Your task to perform on an android device: change keyboard looks Image 0: 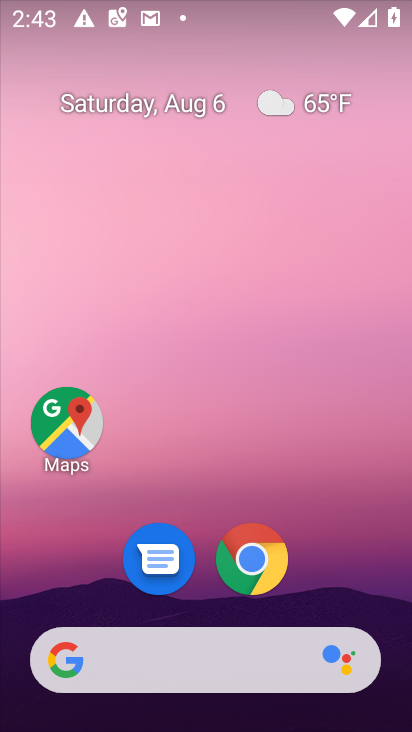
Step 0: drag from (208, 506) to (257, 138)
Your task to perform on an android device: change keyboard looks Image 1: 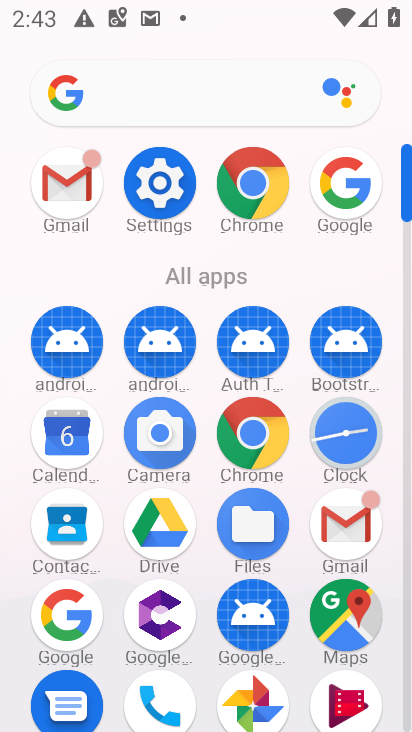
Step 1: click (156, 195)
Your task to perform on an android device: change keyboard looks Image 2: 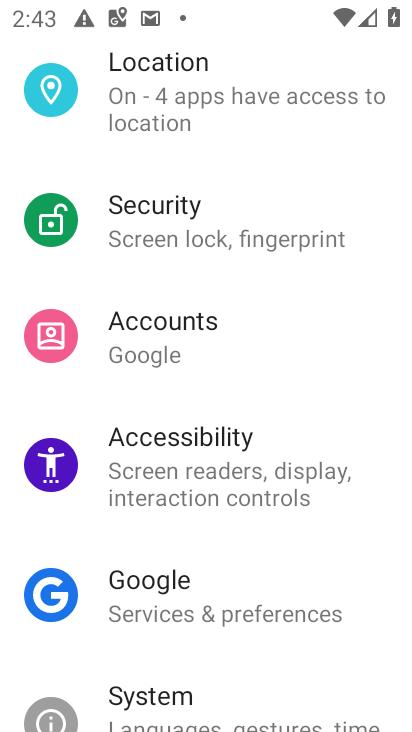
Step 2: drag from (242, 646) to (251, 242)
Your task to perform on an android device: change keyboard looks Image 3: 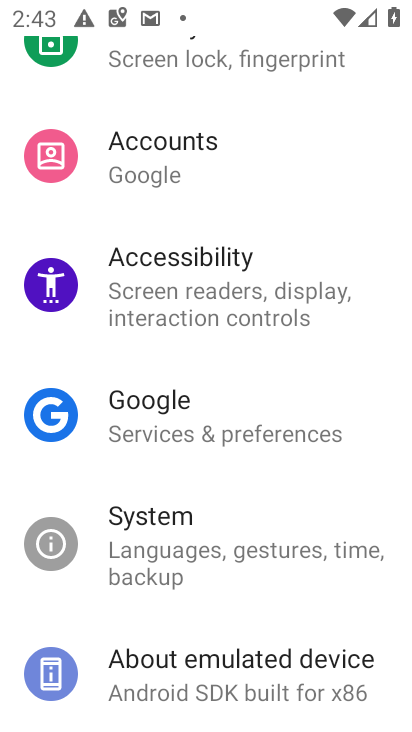
Step 3: click (187, 536)
Your task to perform on an android device: change keyboard looks Image 4: 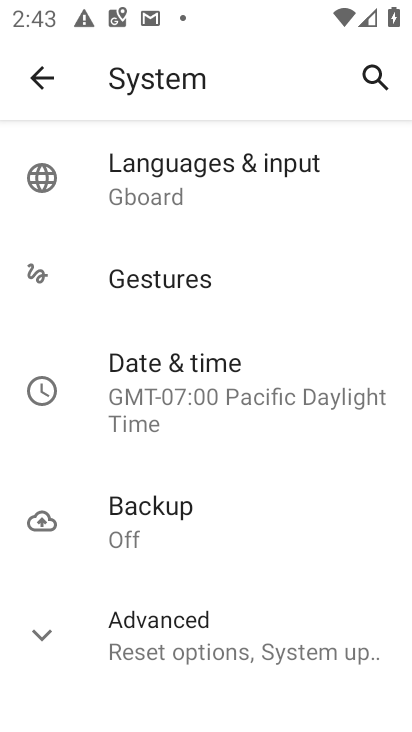
Step 4: click (187, 187)
Your task to perform on an android device: change keyboard looks Image 5: 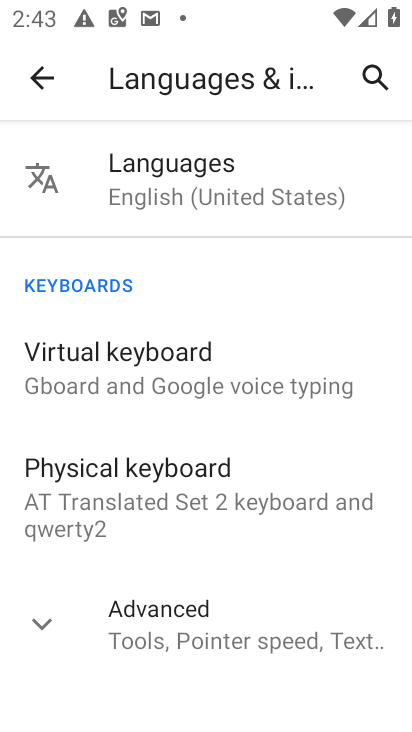
Step 5: click (166, 394)
Your task to perform on an android device: change keyboard looks Image 6: 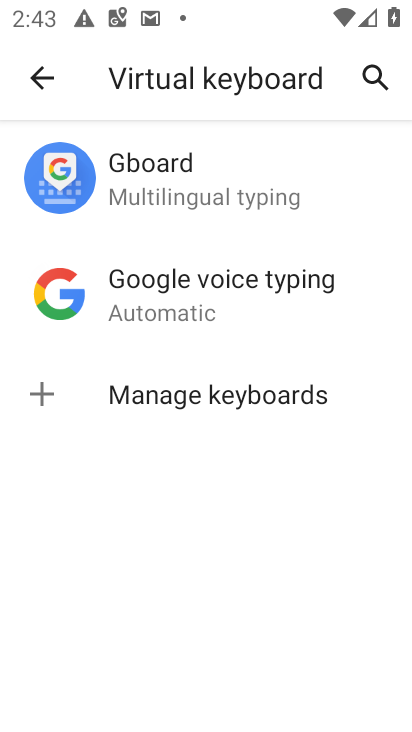
Step 6: click (180, 192)
Your task to perform on an android device: change keyboard looks Image 7: 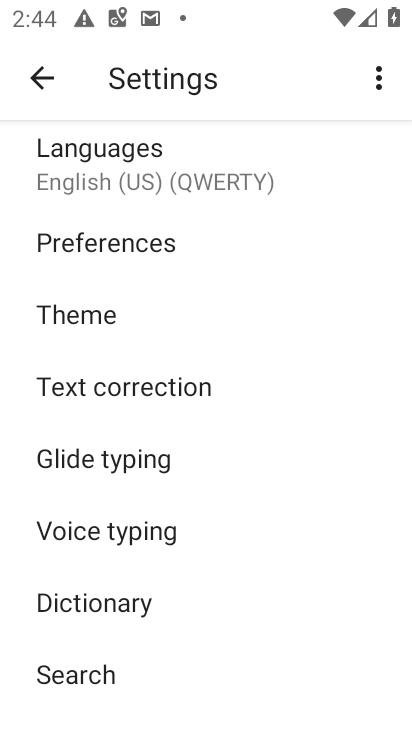
Step 7: drag from (167, 225) to (169, 405)
Your task to perform on an android device: change keyboard looks Image 8: 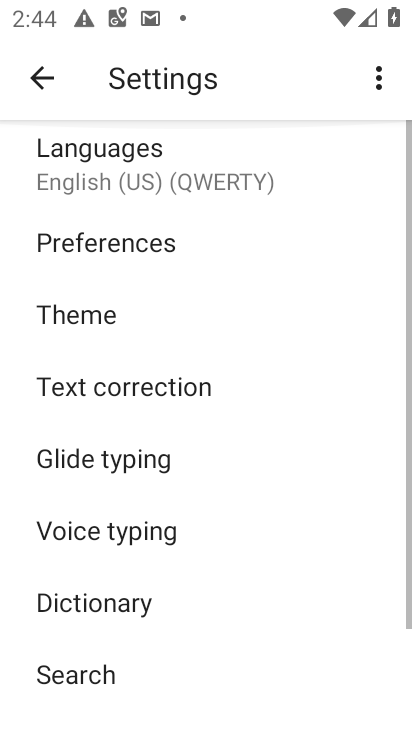
Step 8: click (113, 305)
Your task to perform on an android device: change keyboard looks Image 9: 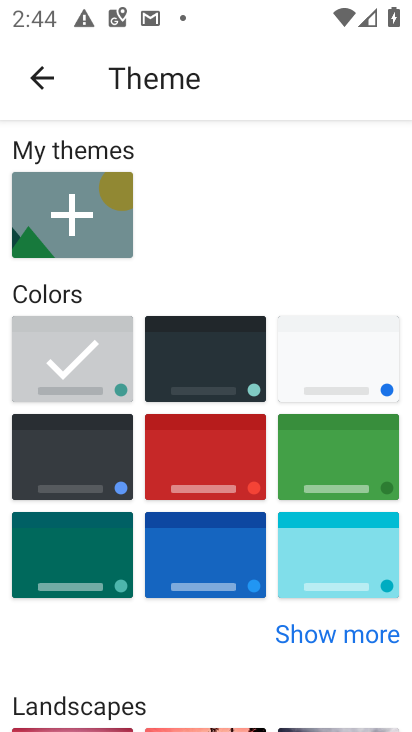
Step 9: click (168, 361)
Your task to perform on an android device: change keyboard looks Image 10: 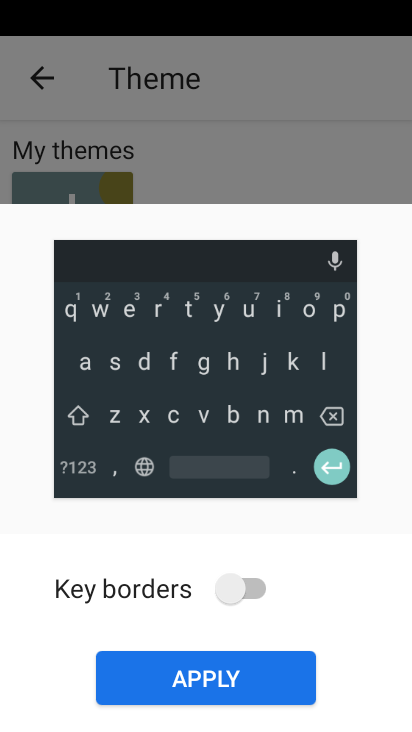
Step 10: click (276, 676)
Your task to perform on an android device: change keyboard looks Image 11: 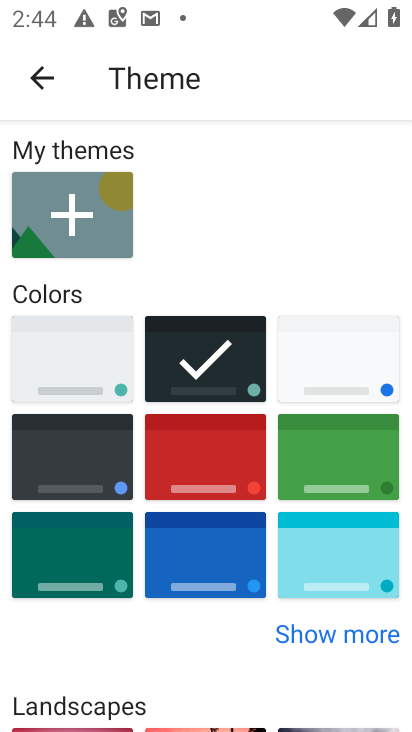
Step 11: task complete